Your task to perform on an android device: change keyboard looks Image 0: 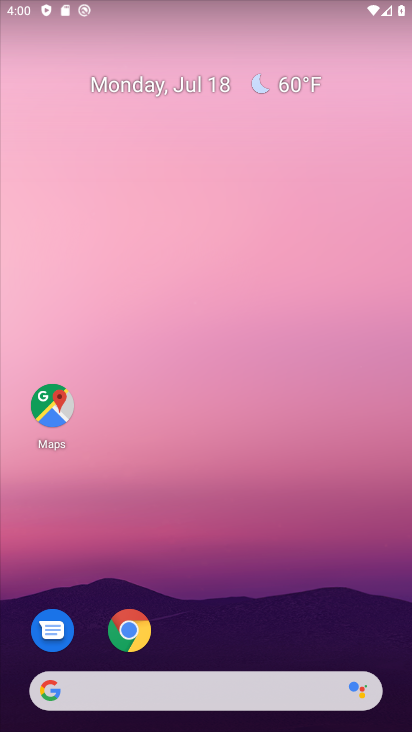
Step 0: drag from (188, 663) to (128, 150)
Your task to perform on an android device: change keyboard looks Image 1: 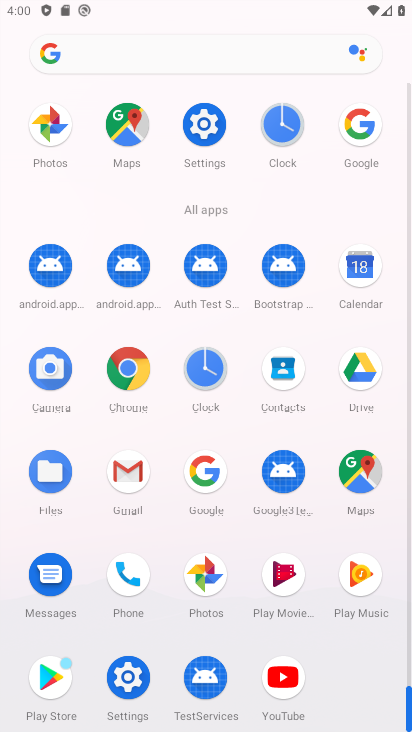
Step 1: click (204, 126)
Your task to perform on an android device: change keyboard looks Image 2: 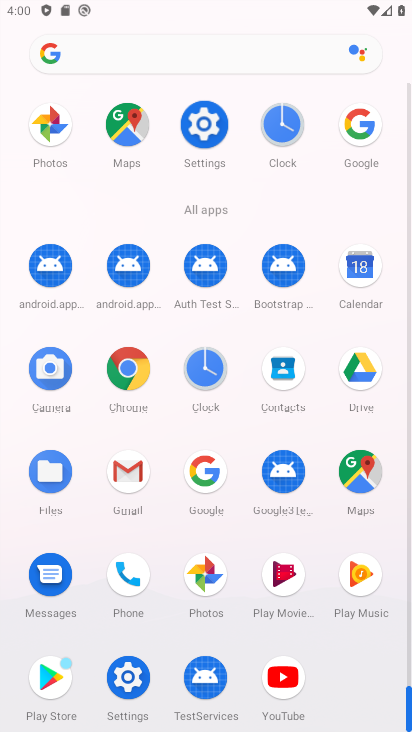
Step 2: click (201, 118)
Your task to perform on an android device: change keyboard looks Image 3: 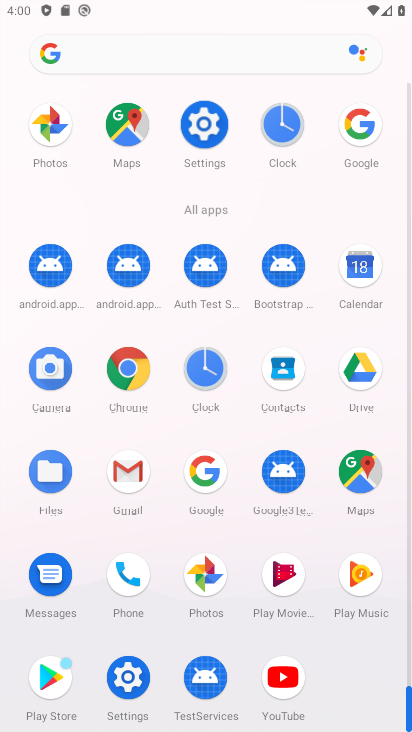
Step 3: click (201, 116)
Your task to perform on an android device: change keyboard looks Image 4: 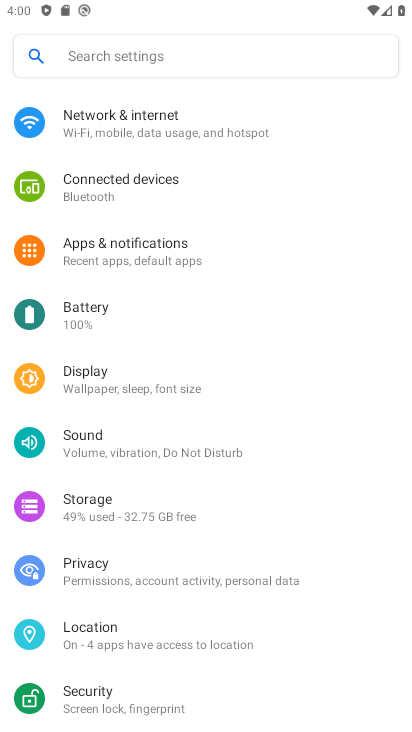
Step 4: click (201, 116)
Your task to perform on an android device: change keyboard looks Image 5: 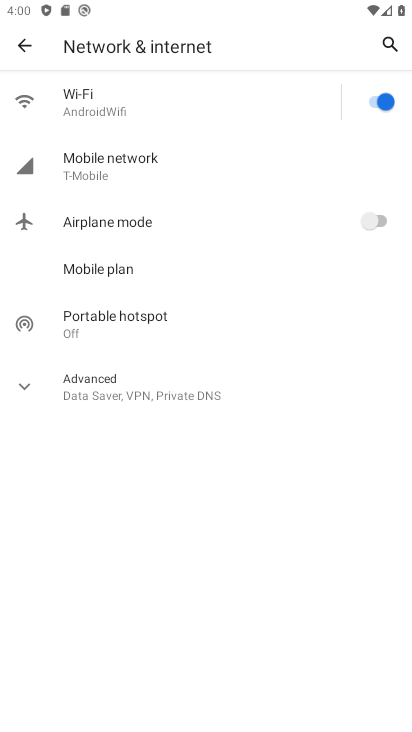
Step 5: click (20, 46)
Your task to perform on an android device: change keyboard looks Image 6: 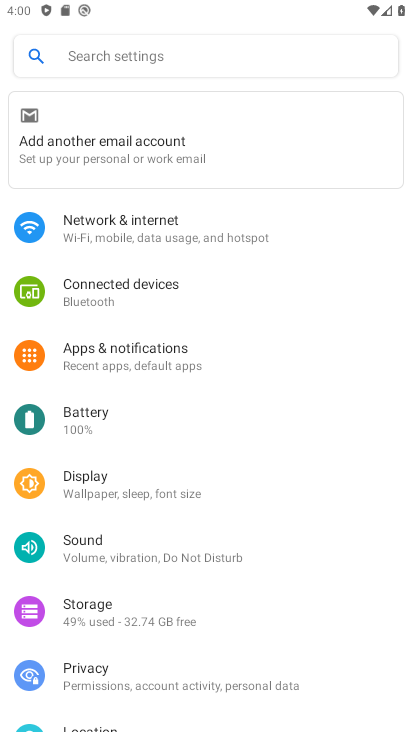
Step 6: drag from (175, 529) to (146, 172)
Your task to perform on an android device: change keyboard looks Image 7: 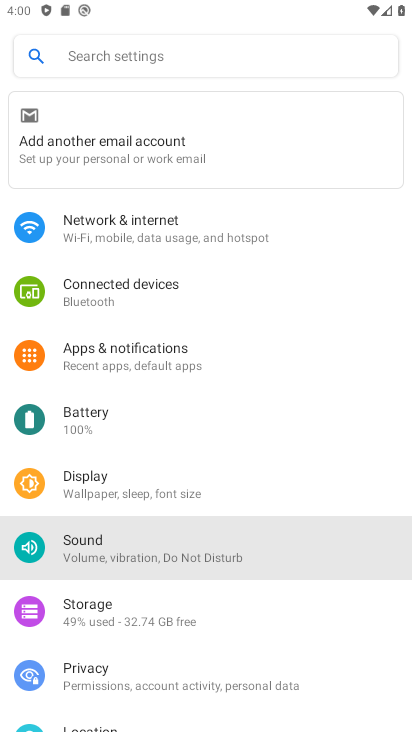
Step 7: drag from (146, 692) to (135, 265)
Your task to perform on an android device: change keyboard looks Image 8: 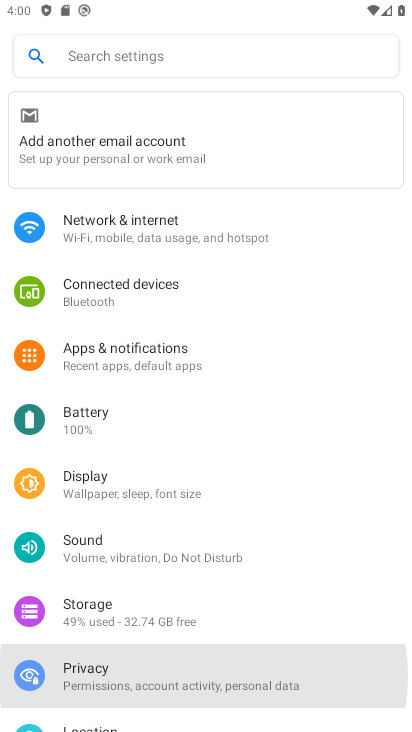
Step 8: drag from (152, 606) to (142, 319)
Your task to perform on an android device: change keyboard looks Image 9: 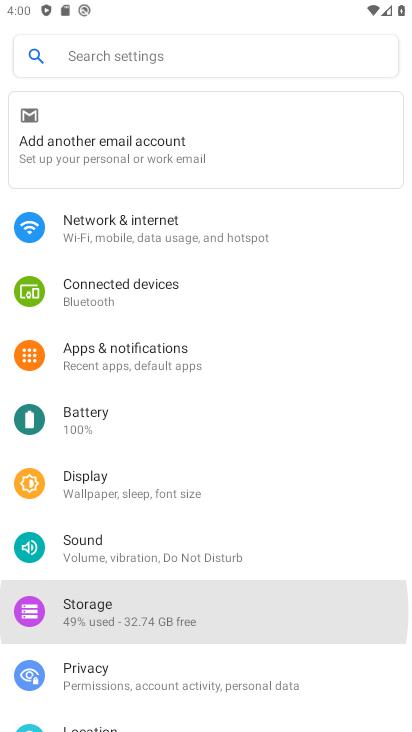
Step 9: drag from (171, 498) to (162, 136)
Your task to perform on an android device: change keyboard looks Image 10: 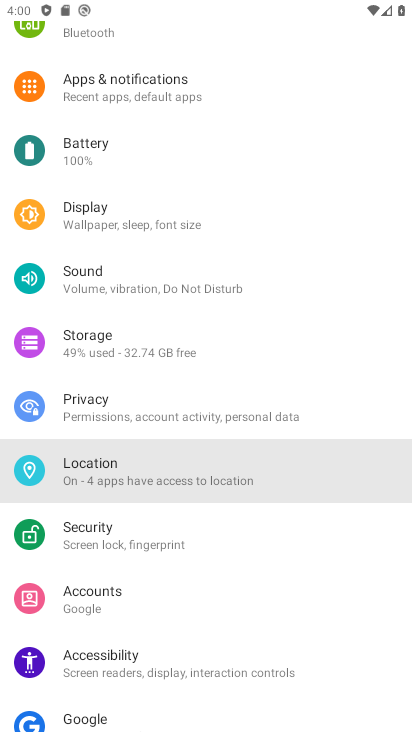
Step 10: drag from (198, 532) to (196, 208)
Your task to perform on an android device: change keyboard looks Image 11: 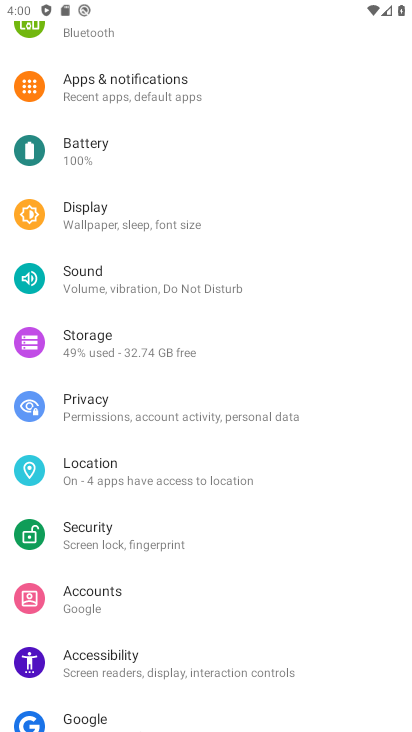
Step 11: drag from (122, 573) to (170, 213)
Your task to perform on an android device: change keyboard looks Image 12: 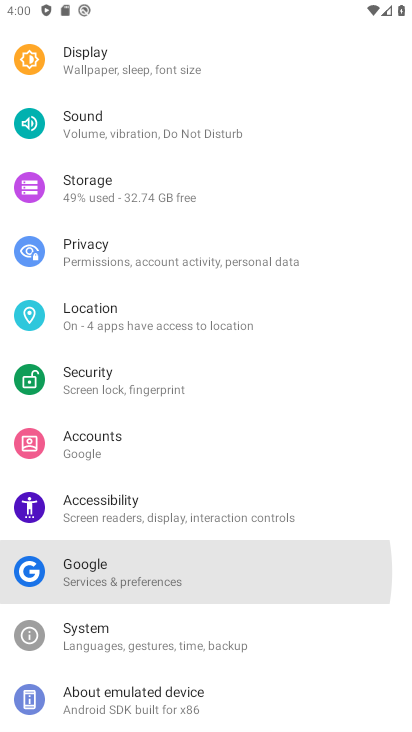
Step 12: drag from (151, 496) to (178, 158)
Your task to perform on an android device: change keyboard looks Image 13: 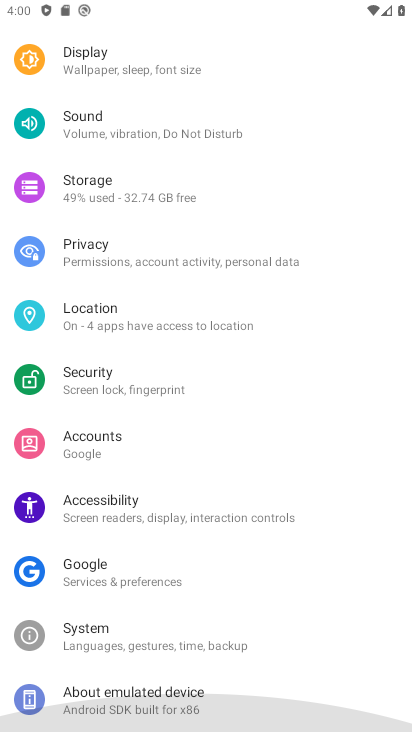
Step 13: drag from (131, 537) to (152, 199)
Your task to perform on an android device: change keyboard looks Image 14: 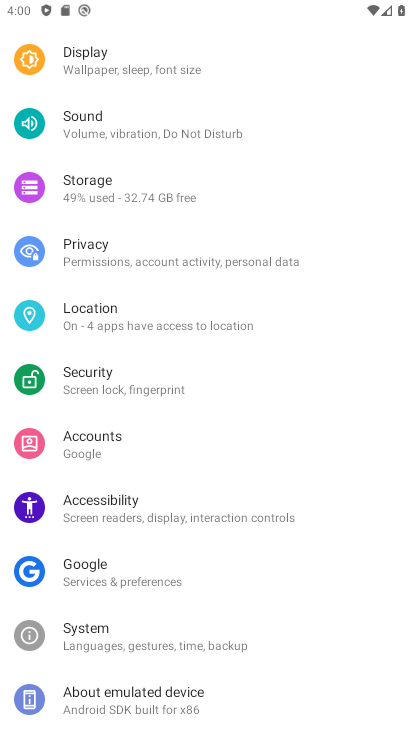
Step 14: click (94, 635)
Your task to perform on an android device: change keyboard looks Image 15: 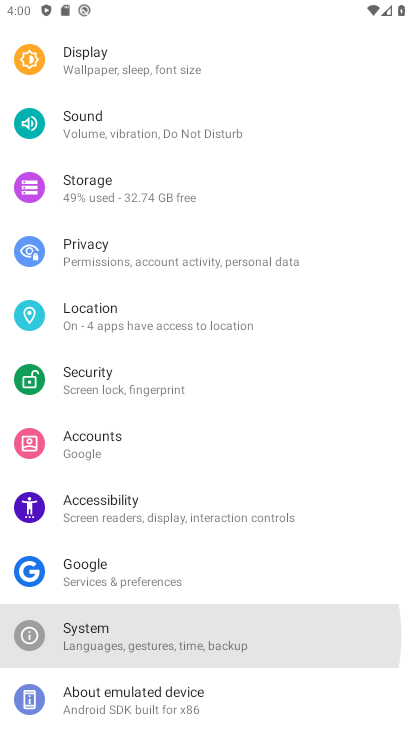
Step 15: click (94, 635)
Your task to perform on an android device: change keyboard looks Image 16: 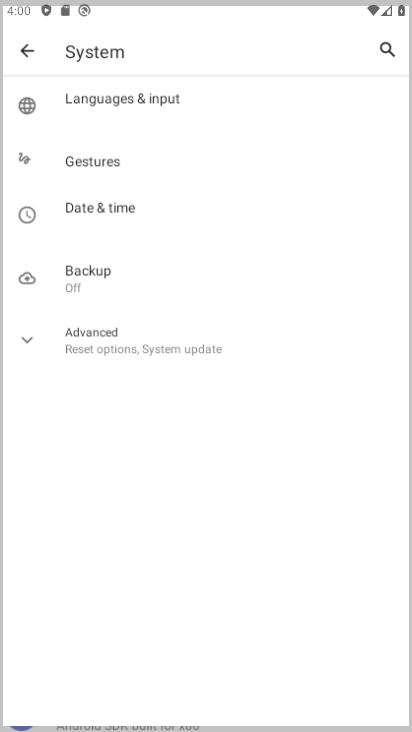
Step 16: click (94, 635)
Your task to perform on an android device: change keyboard looks Image 17: 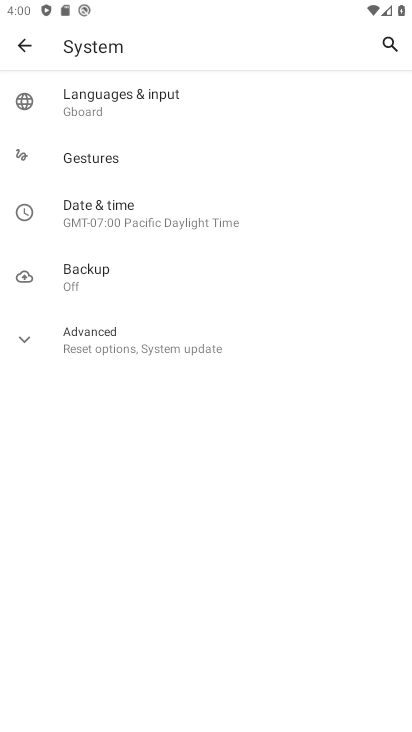
Step 17: click (95, 102)
Your task to perform on an android device: change keyboard looks Image 18: 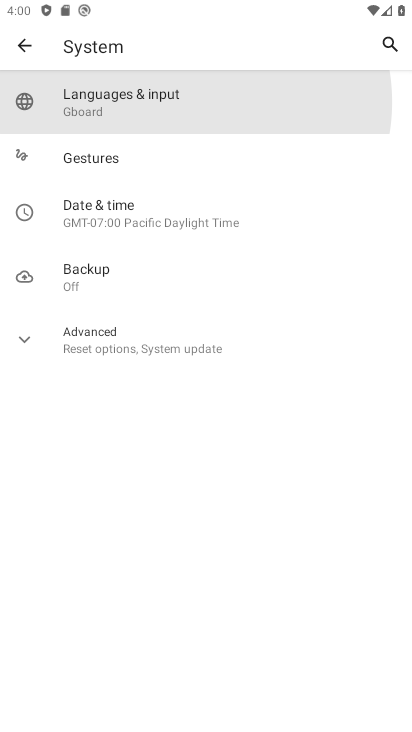
Step 18: click (95, 102)
Your task to perform on an android device: change keyboard looks Image 19: 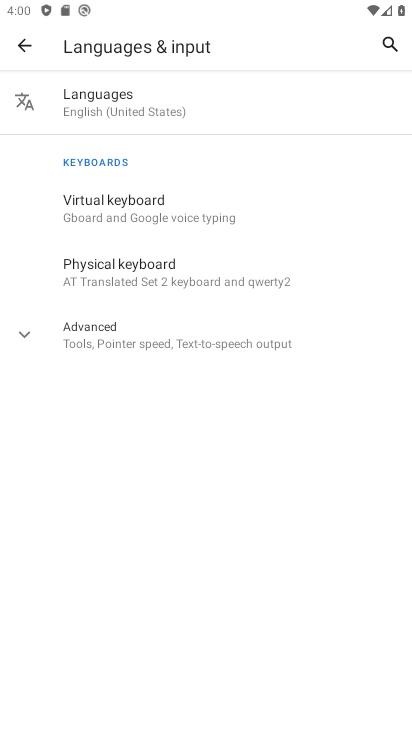
Step 19: click (118, 216)
Your task to perform on an android device: change keyboard looks Image 20: 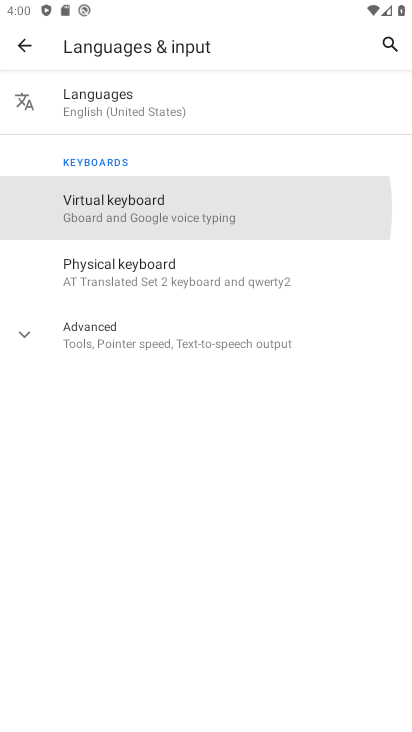
Step 20: click (119, 202)
Your task to perform on an android device: change keyboard looks Image 21: 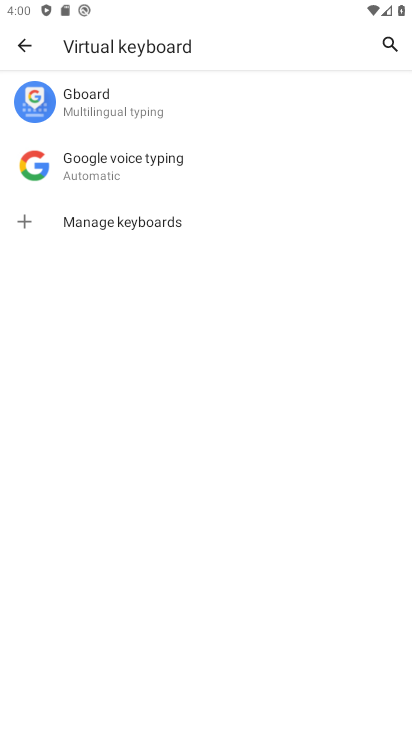
Step 21: click (66, 90)
Your task to perform on an android device: change keyboard looks Image 22: 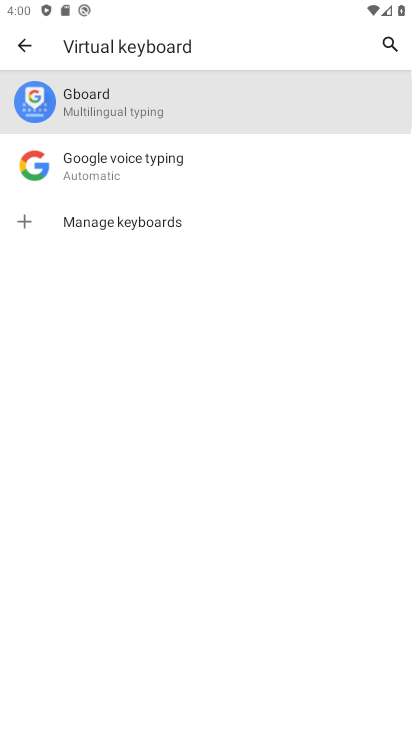
Step 22: click (71, 93)
Your task to perform on an android device: change keyboard looks Image 23: 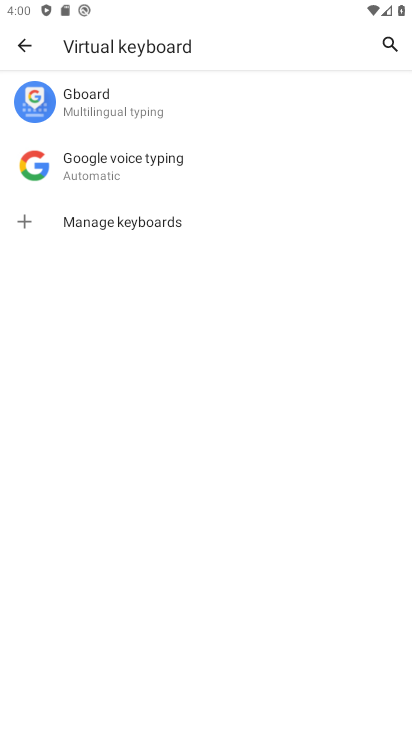
Step 23: click (72, 94)
Your task to perform on an android device: change keyboard looks Image 24: 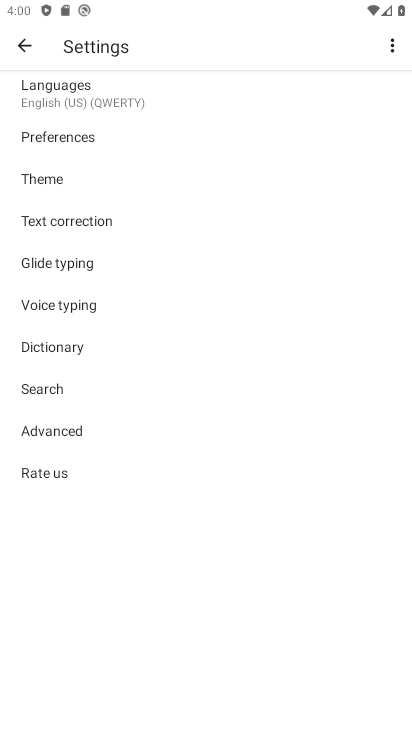
Step 24: click (49, 178)
Your task to perform on an android device: change keyboard looks Image 25: 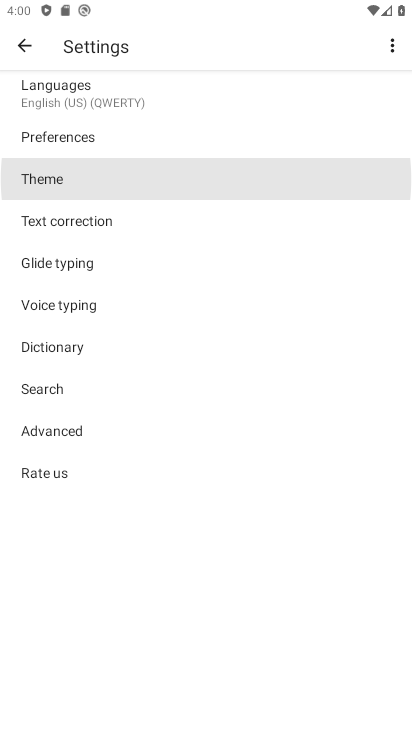
Step 25: click (49, 178)
Your task to perform on an android device: change keyboard looks Image 26: 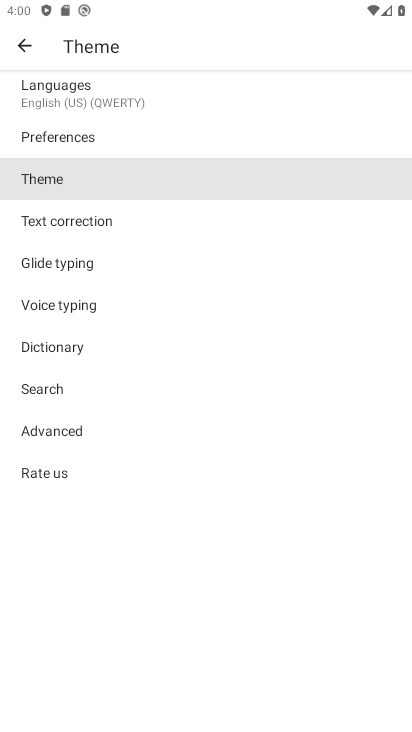
Step 26: click (49, 178)
Your task to perform on an android device: change keyboard looks Image 27: 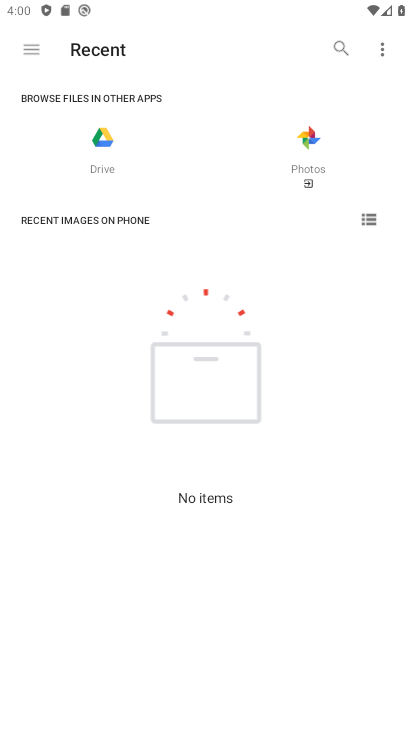
Step 27: click (37, 53)
Your task to perform on an android device: change keyboard looks Image 28: 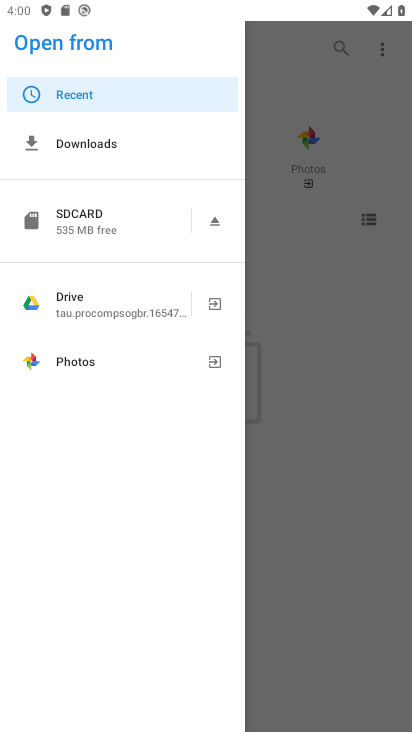
Step 28: press back button
Your task to perform on an android device: change keyboard looks Image 29: 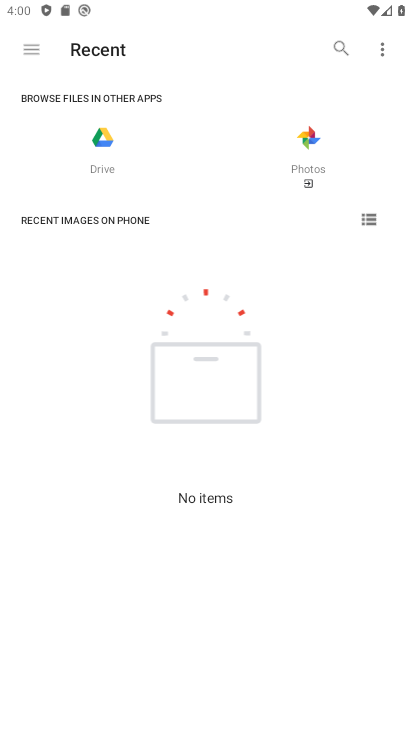
Step 29: press back button
Your task to perform on an android device: change keyboard looks Image 30: 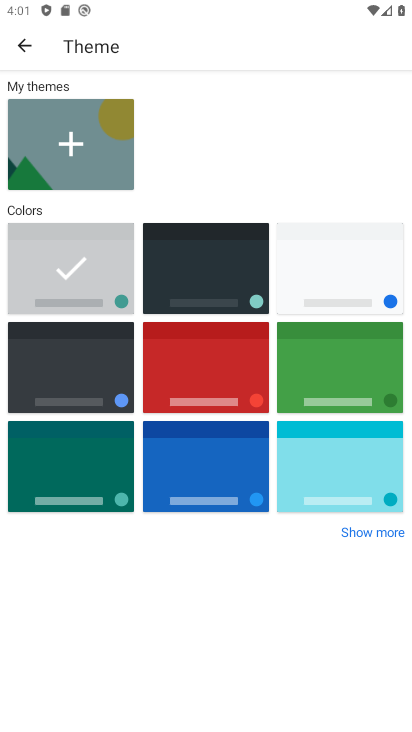
Step 30: click (60, 337)
Your task to perform on an android device: change keyboard looks Image 31: 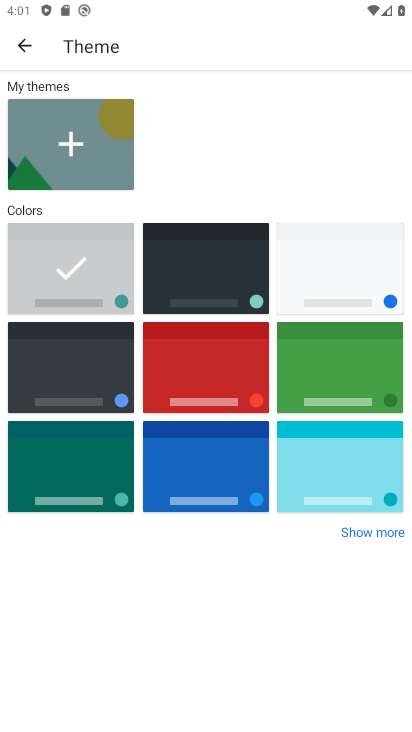
Step 31: click (64, 341)
Your task to perform on an android device: change keyboard looks Image 32: 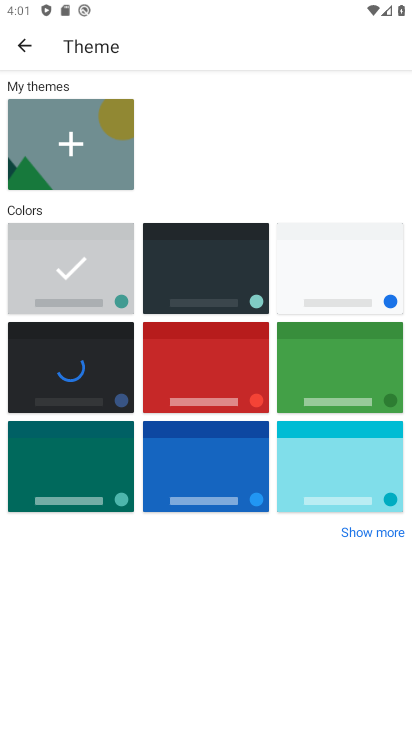
Step 32: click (66, 343)
Your task to perform on an android device: change keyboard looks Image 33: 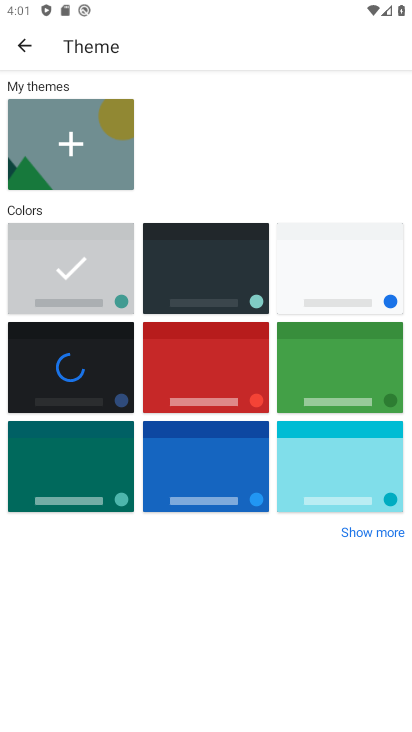
Step 33: click (67, 344)
Your task to perform on an android device: change keyboard looks Image 34: 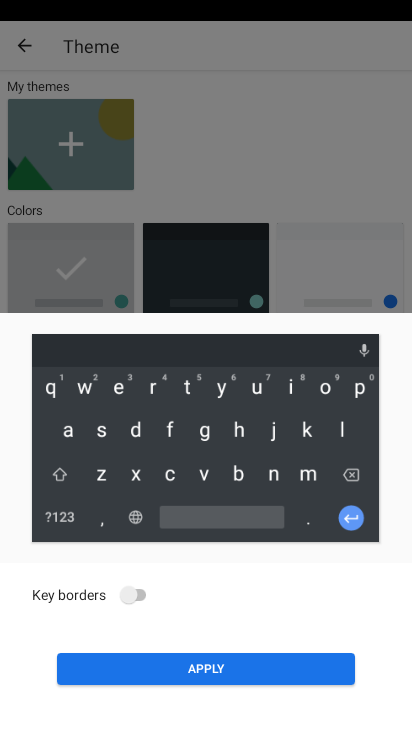
Step 34: click (209, 671)
Your task to perform on an android device: change keyboard looks Image 35: 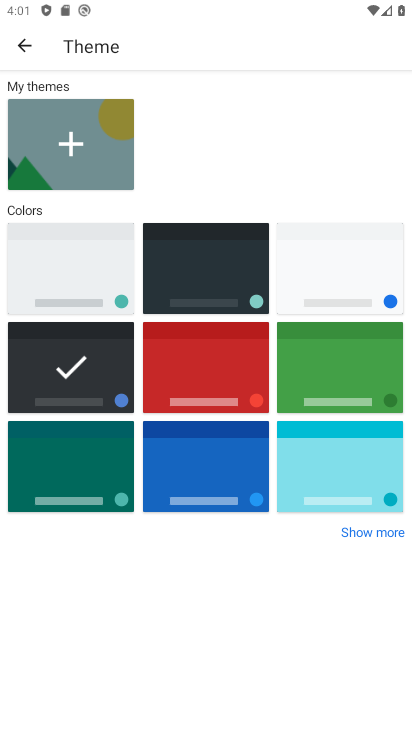
Step 35: task complete